Your task to perform on an android device: open app "Microsoft Authenticator" (install if not already installed) Image 0: 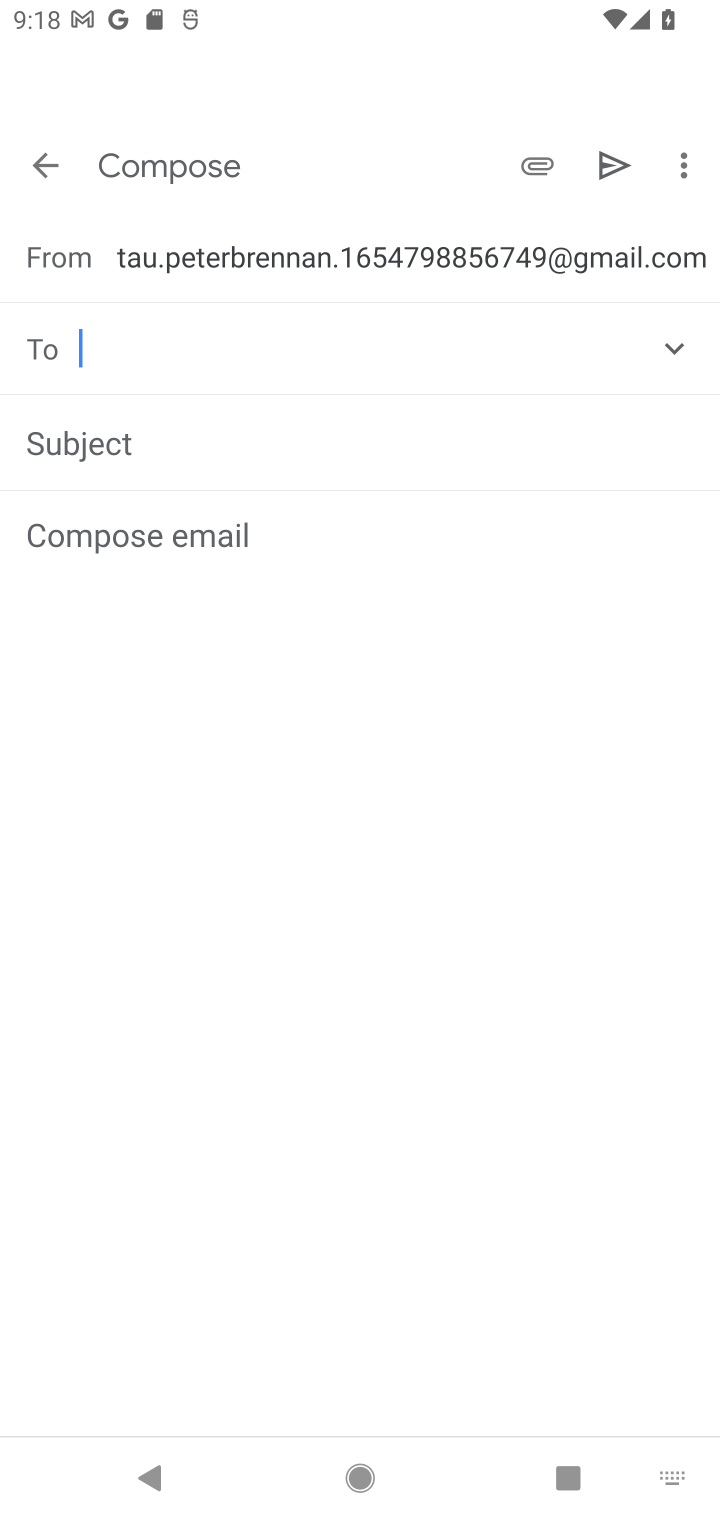
Step 0: press home button
Your task to perform on an android device: open app "Microsoft Authenticator" (install if not already installed) Image 1: 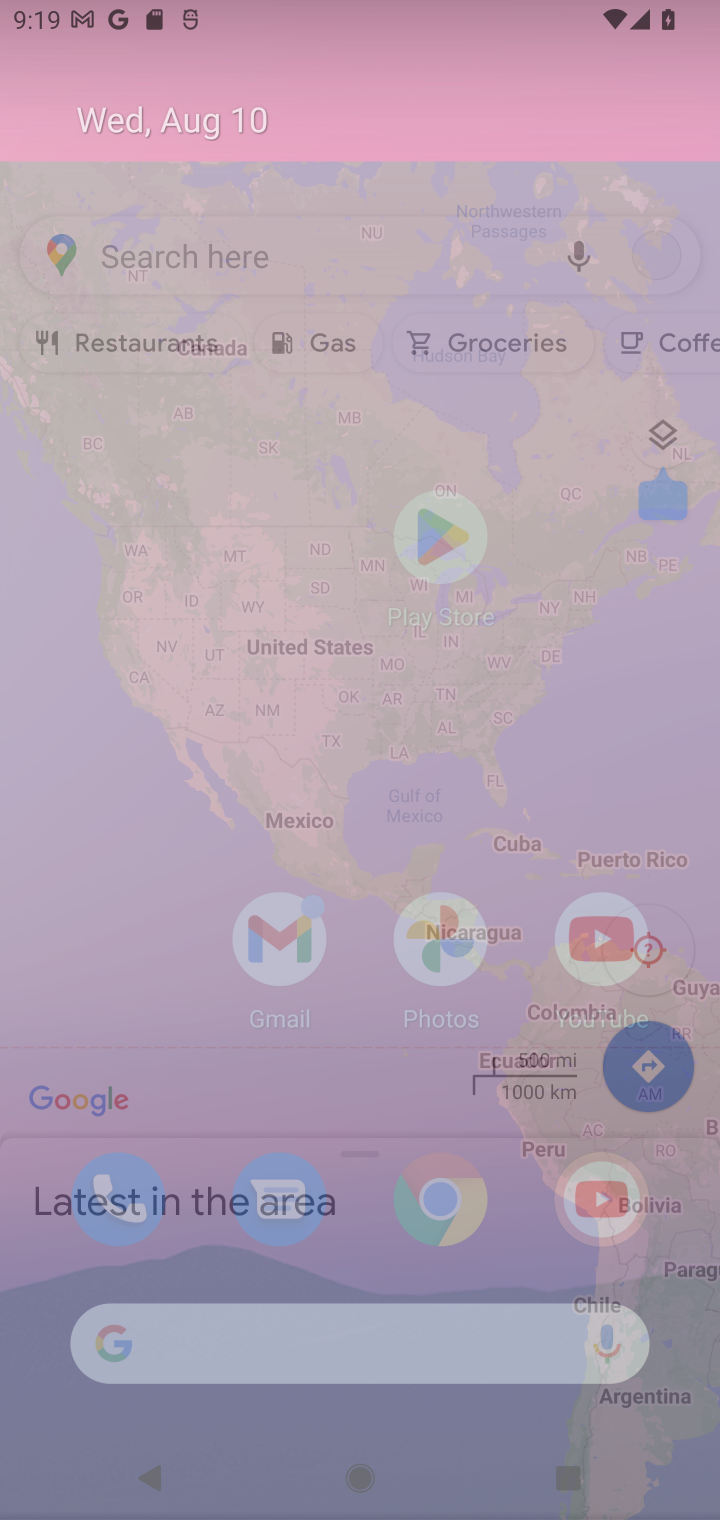
Step 1: press home button
Your task to perform on an android device: open app "Microsoft Authenticator" (install if not already installed) Image 2: 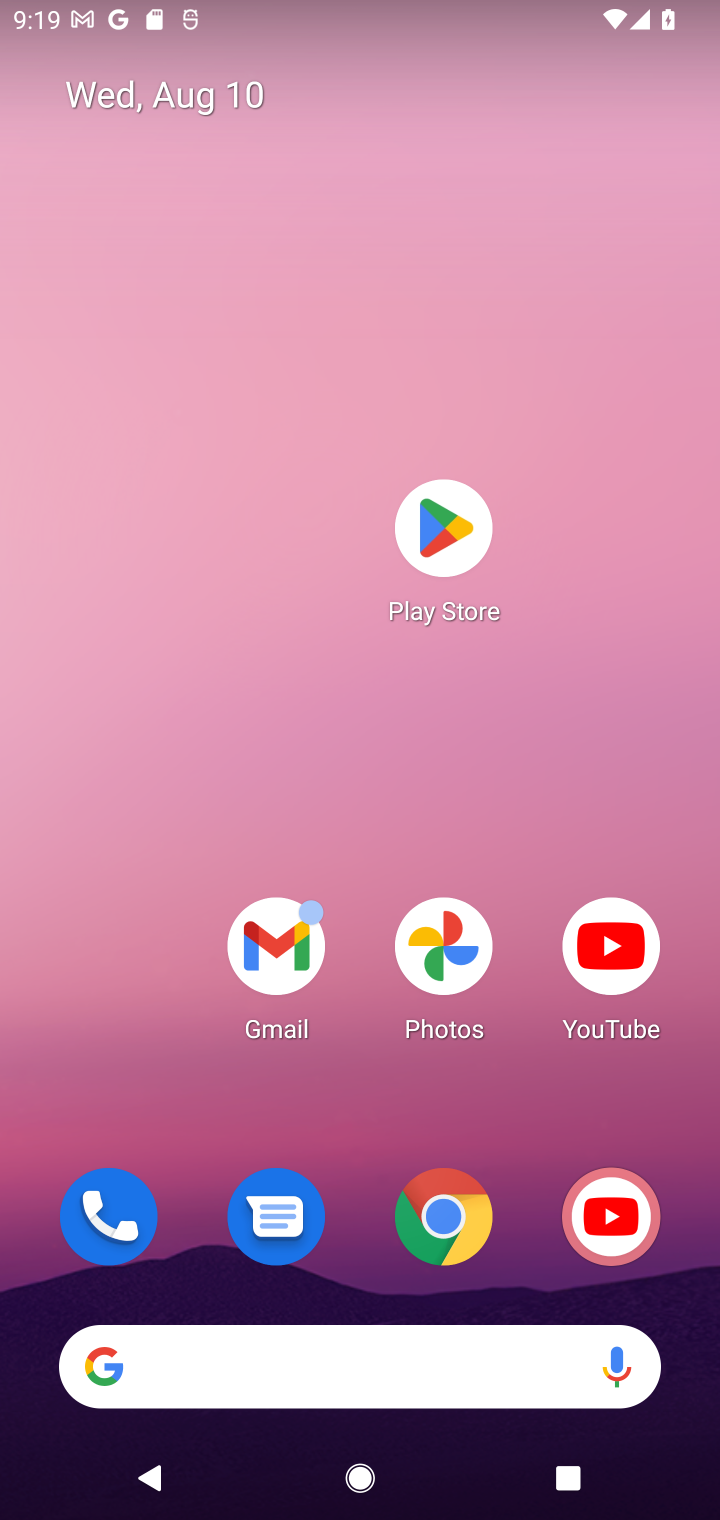
Step 2: click (440, 525)
Your task to perform on an android device: open app "Microsoft Authenticator" (install if not already installed) Image 3: 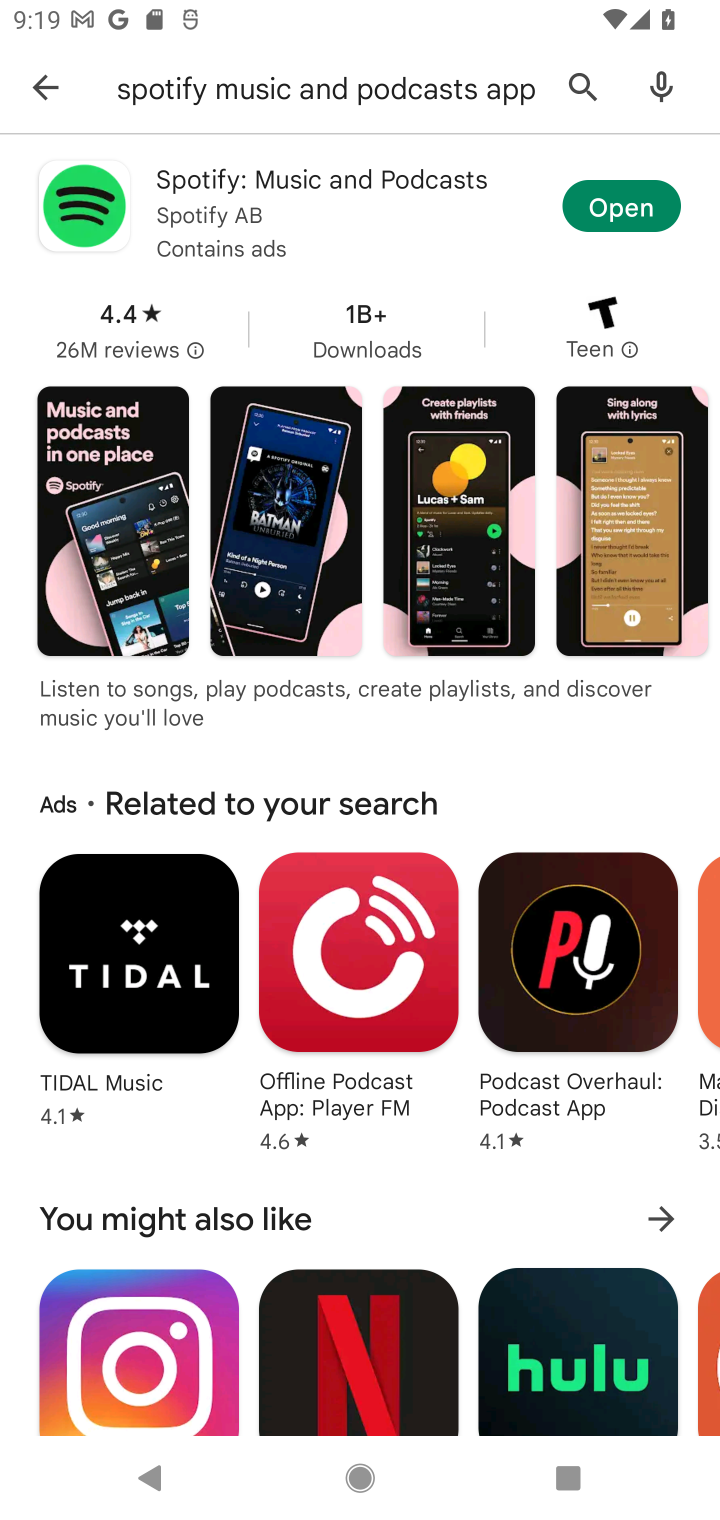
Step 3: click (581, 85)
Your task to perform on an android device: open app "Microsoft Authenticator" (install if not already installed) Image 4: 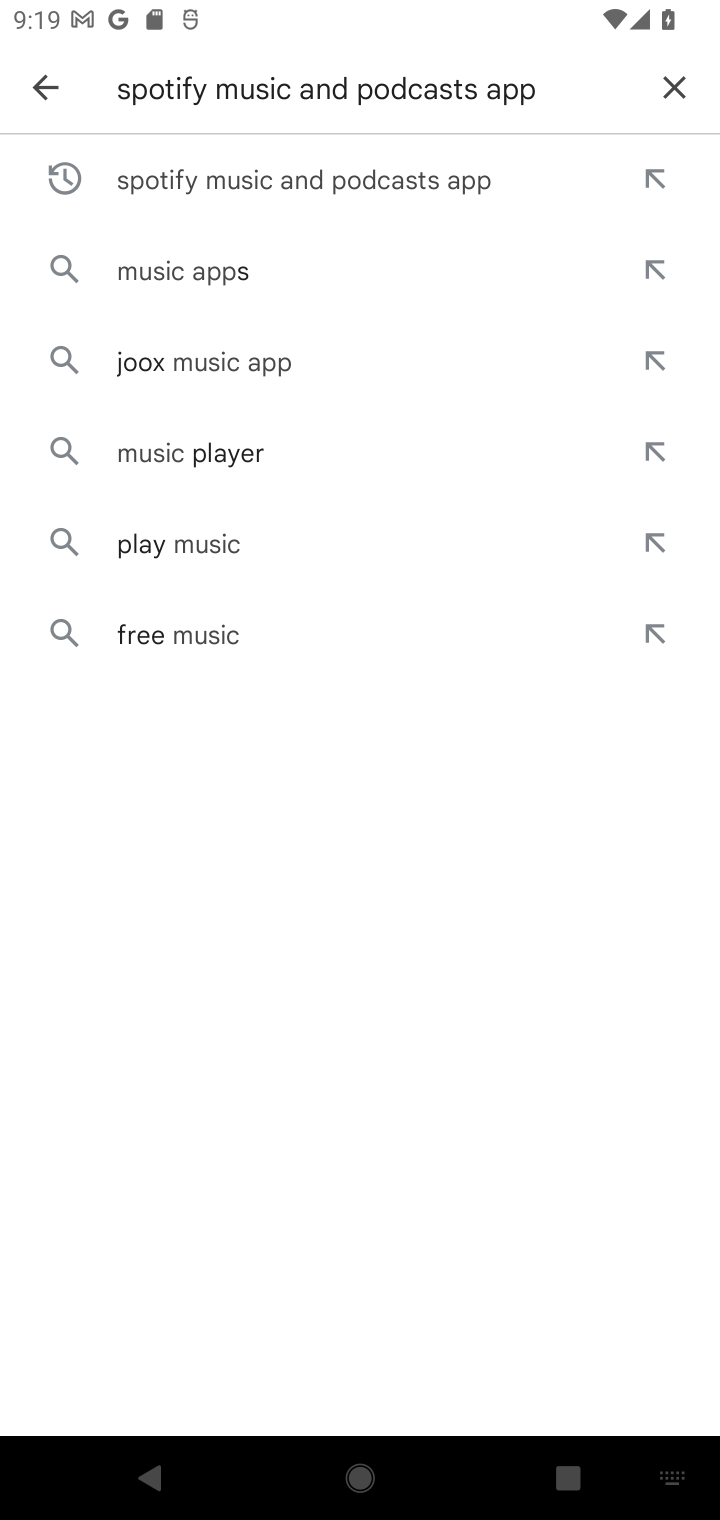
Step 4: click (679, 79)
Your task to perform on an android device: open app "Microsoft Authenticator" (install if not already installed) Image 5: 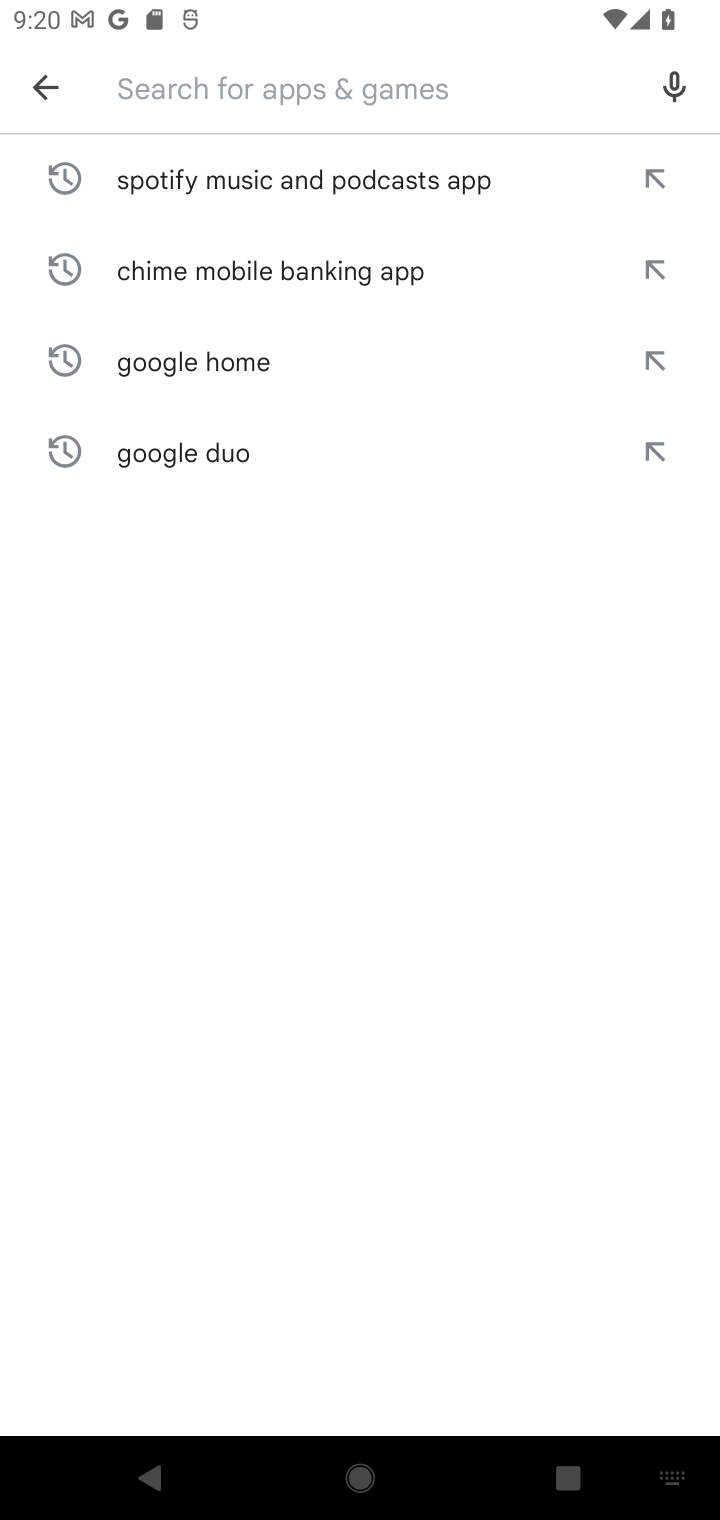
Step 5: type "Microsoft Authenticator"
Your task to perform on an android device: open app "Microsoft Authenticator" (install if not already installed) Image 6: 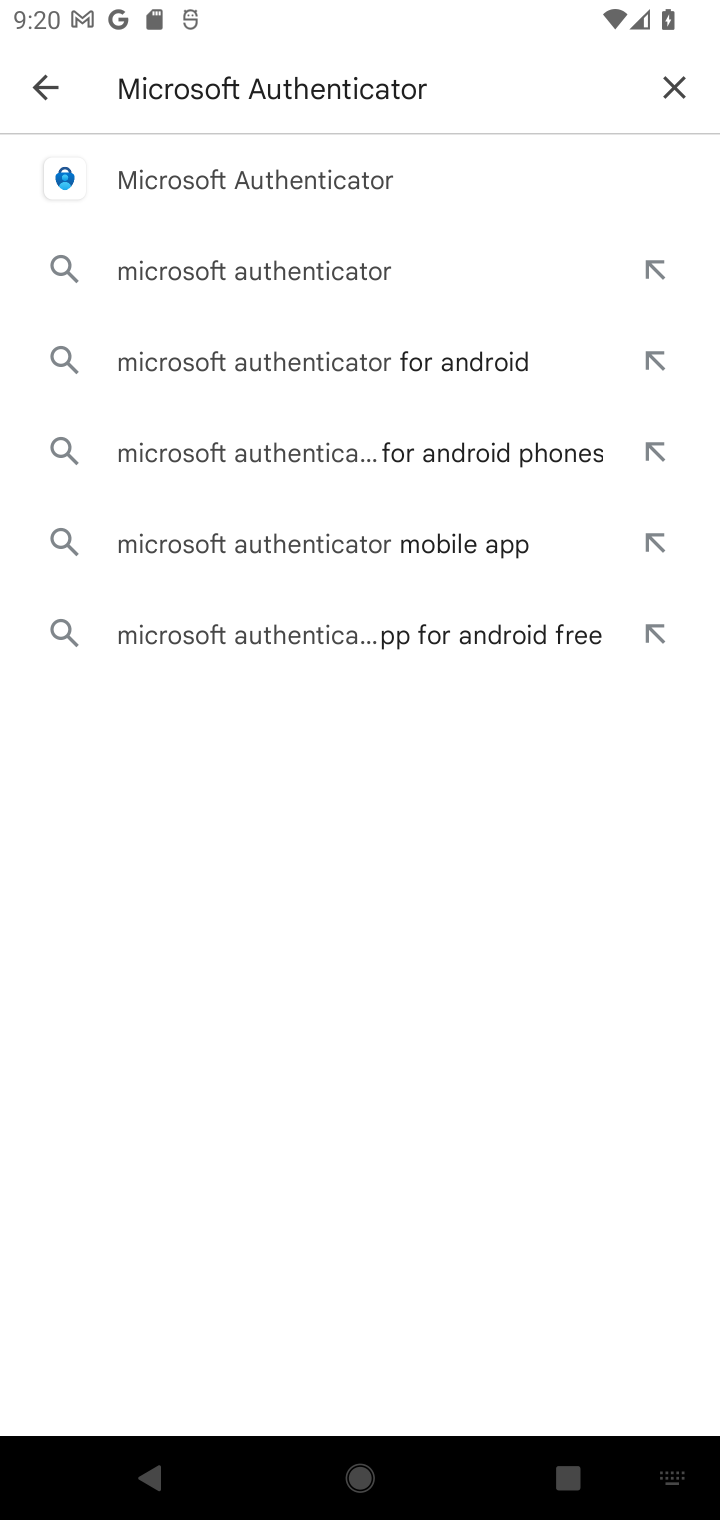
Step 6: click (244, 180)
Your task to perform on an android device: open app "Microsoft Authenticator" (install if not already installed) Image 7: 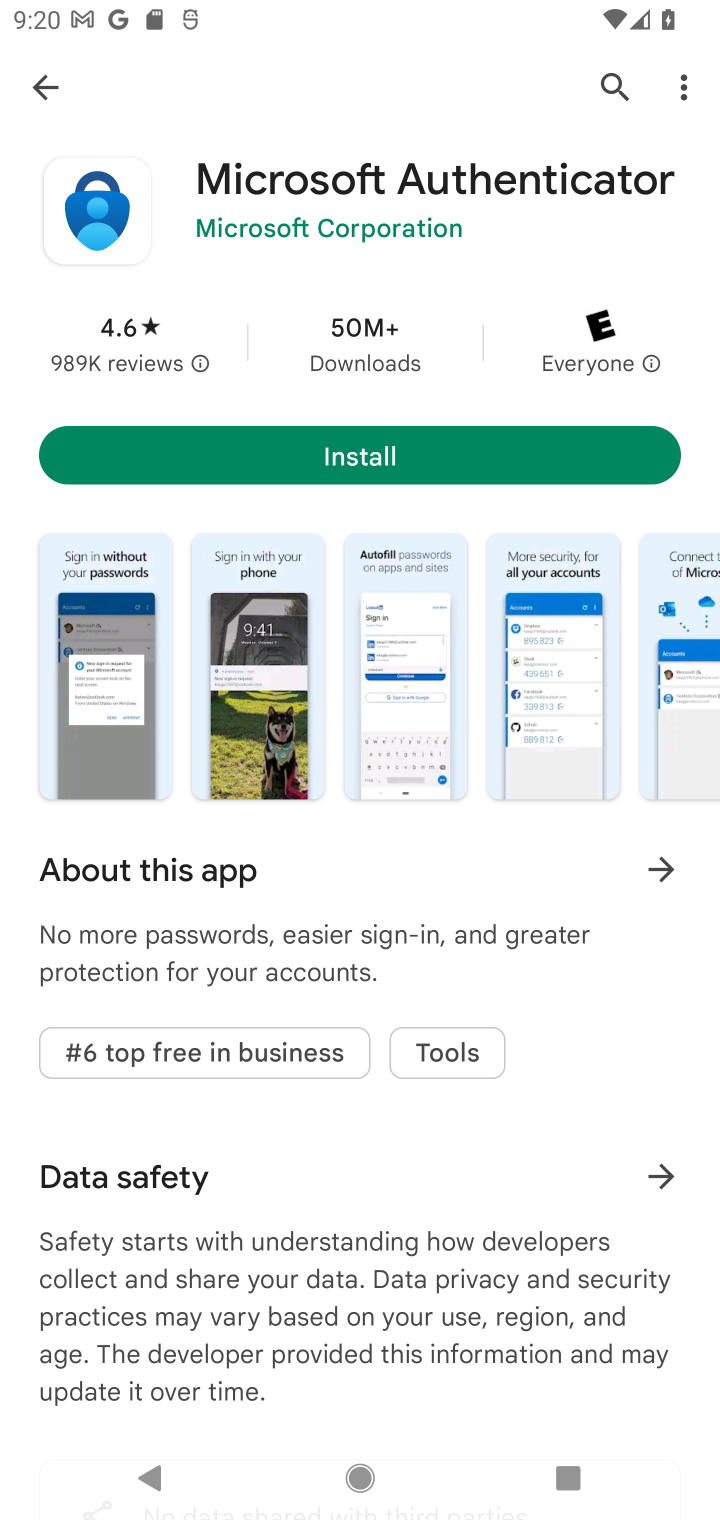
Step 7: click (373, 469)
Your task to perform on an android device: open app "Microsoft Authenticator" (install if not already installed) Image 8: 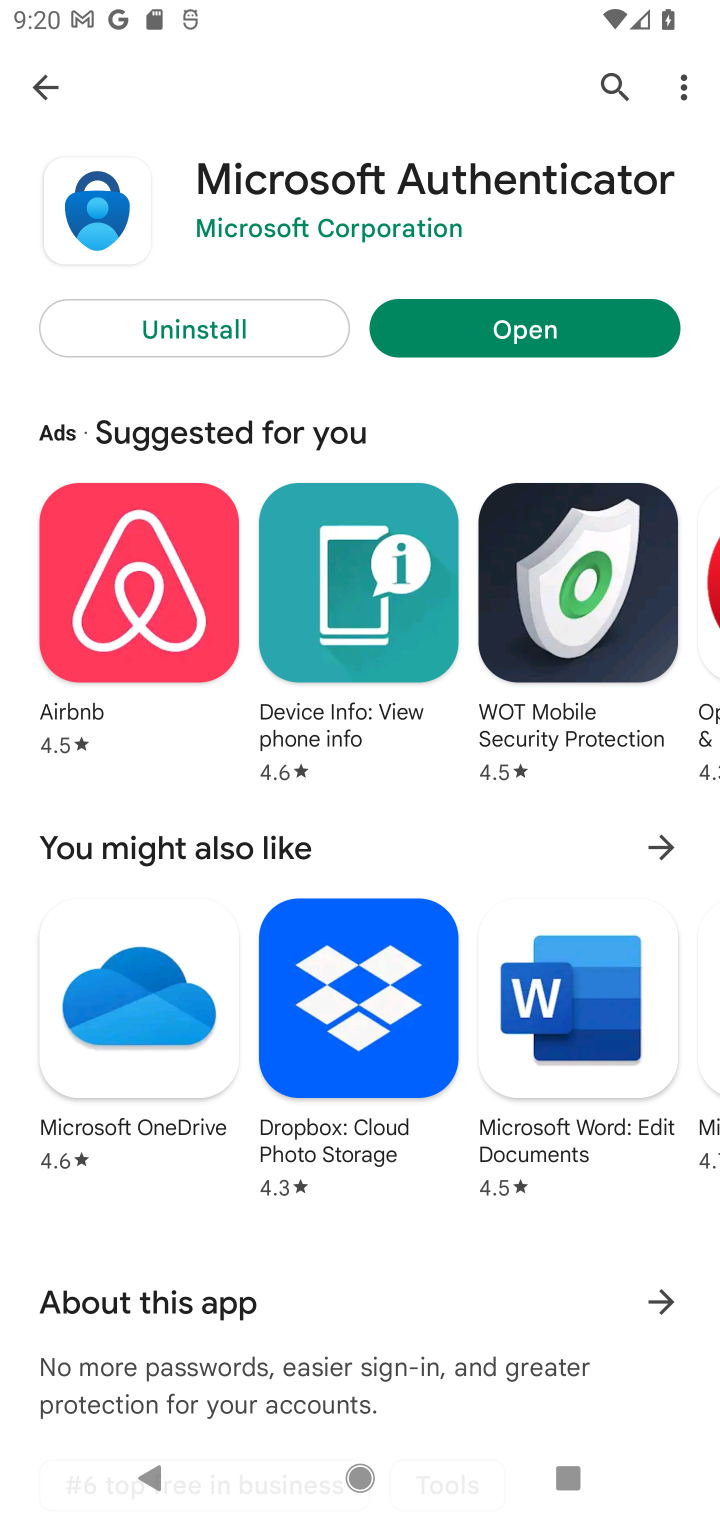
Step 8: click (497, 322)
Your task to perform on an android device: open app "Microsoft Authenticator" (install if not already installed) Image 9: 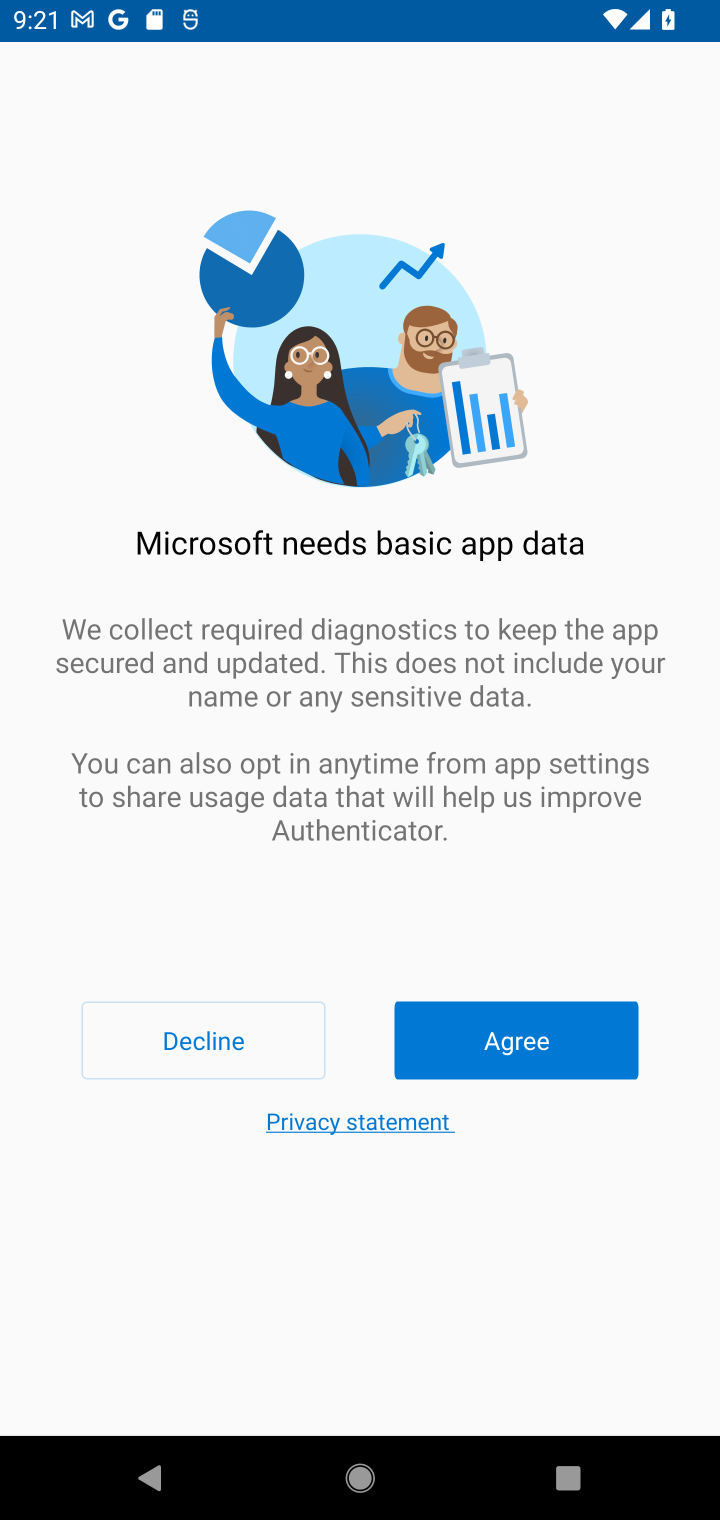
Step 9: task complete